Your task to perform on an android device: Open privacy settings Image 0: 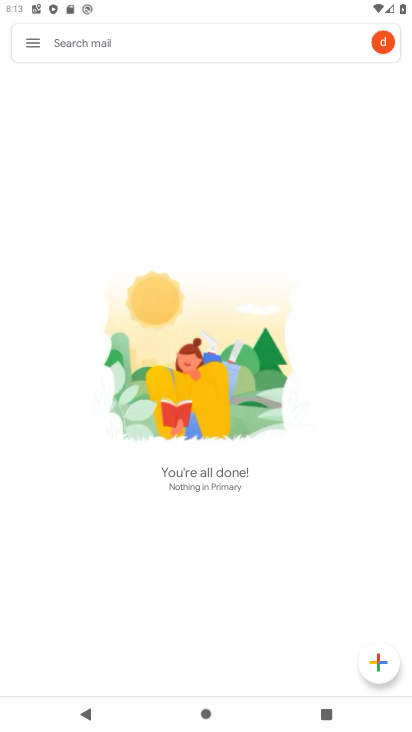
Step 0: press home button
Your task to perform on an android device: Open privacy settings Image 1: 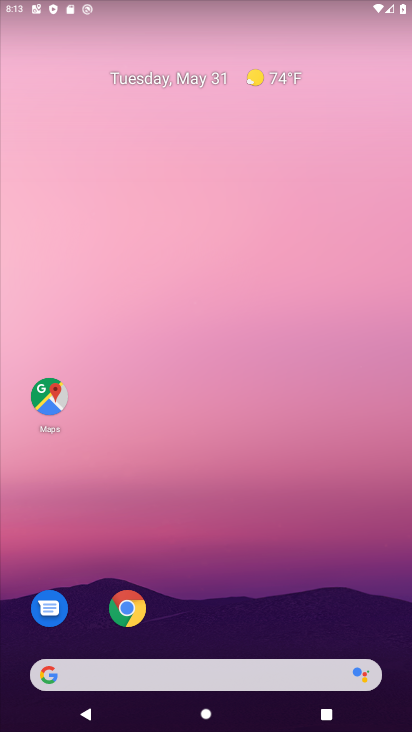
Step 1: drag from (202, 635) to (139, 28)
Your task to perform on an android device: Open privacy settings Image 2: 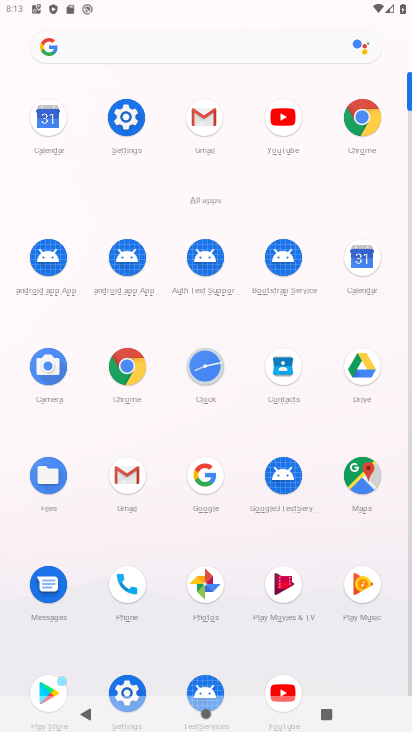
Step 2: click (130, 138)
Your task to perform on an android device: Open privacy settings Image 3: 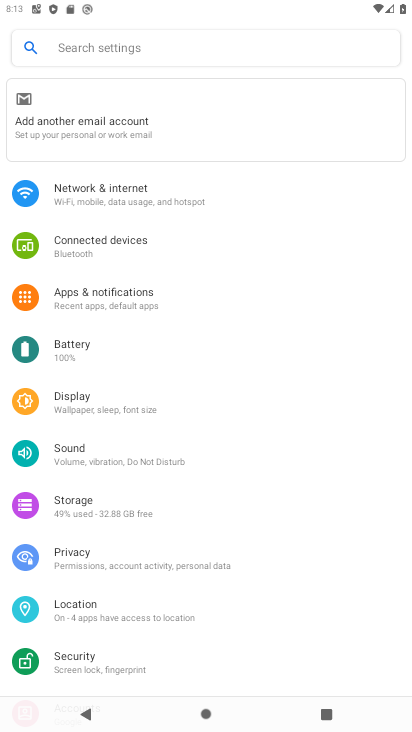
Step 3: click (49, 551)
Your task to perform on an android device: Open privacy settings Image 4: 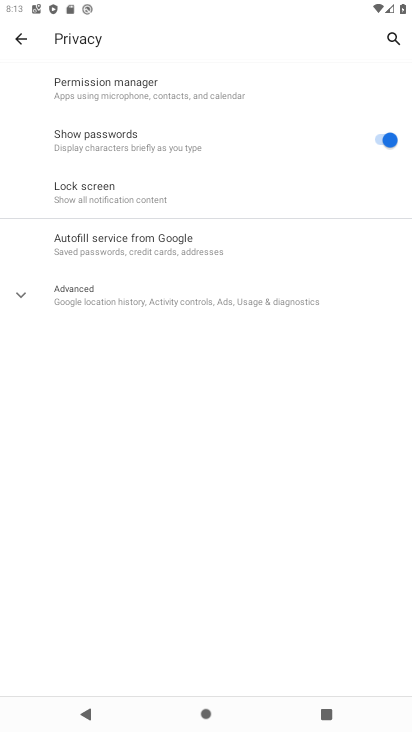
Step 4: task complete